Your task to perform on an android device: check out phone information Image 0: 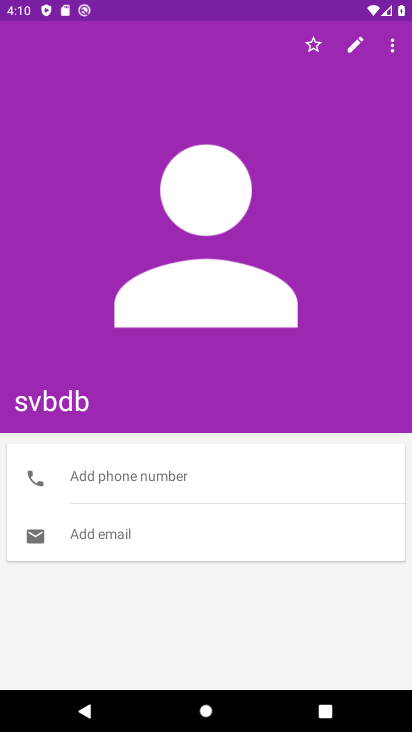
Step 0: press home button
Your task to perform on an android device: check out phone information Image 1: 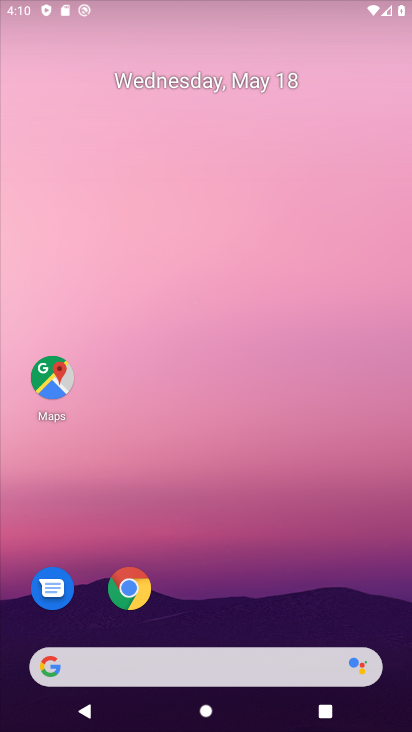
Step 1: drag from (309, 605) to (226, 115)
Your task to perform on an android device: check out phone information Image 2: 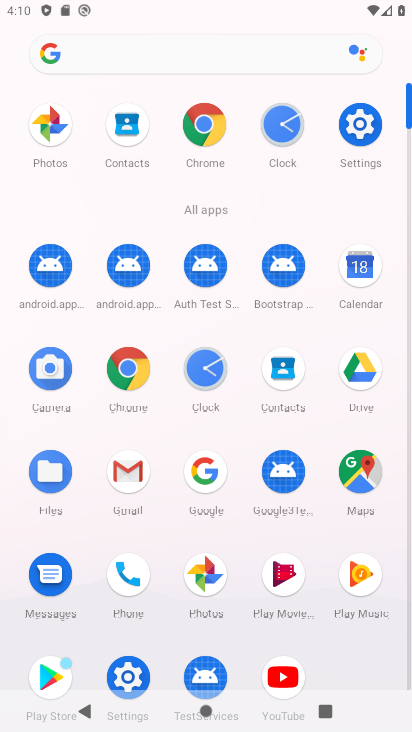
Step 2: click (137, 580)
Your task to perform on an android device: check out phone information Image 3: 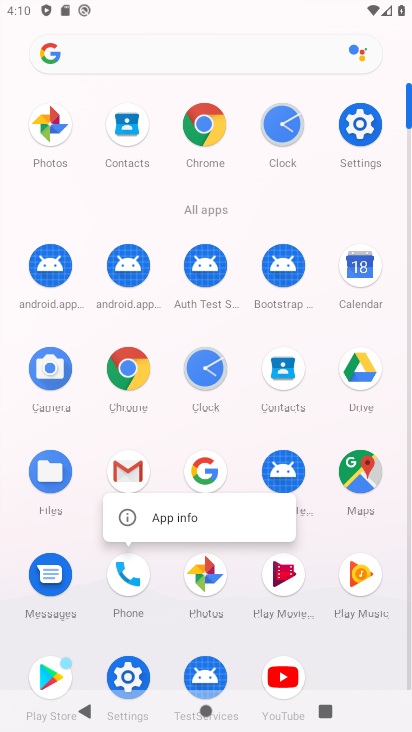
Step 3: click (168, 516)
Your task to perform on an android device: check out phone information Image 4: 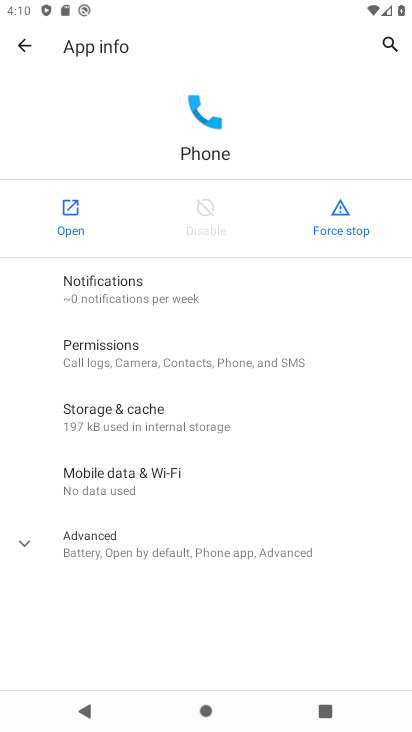
Step 4: task complete